Your task to perform on an android device: Open the calendar app, open the side menu, and click the "Day" option Image 0: 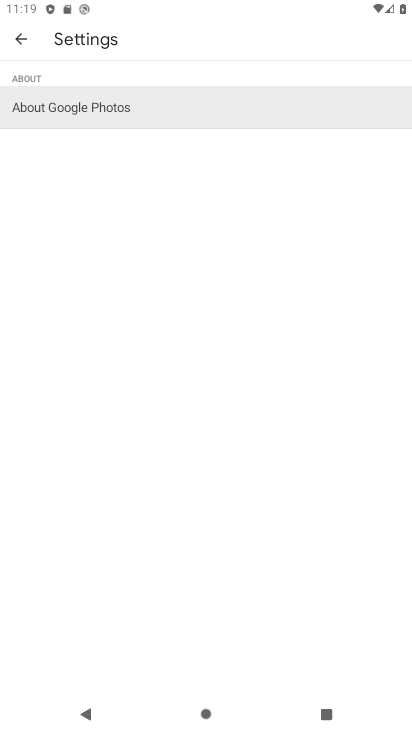
Step 0: press home button
Your task to perform on an android device: Open the calendar app, open the side menu, and click the "Day" option Image 1: 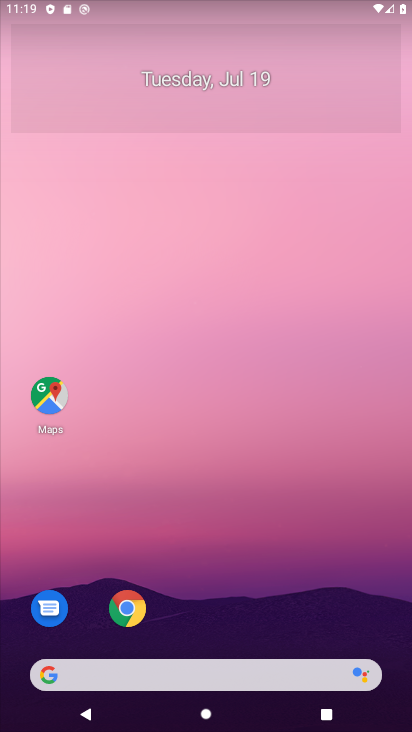
Step 1: drag from (254, 627) to (246, 116)
Your task to perform on an android device: Open the calendar app, open the side menu, and click the "Day" option Image 2: 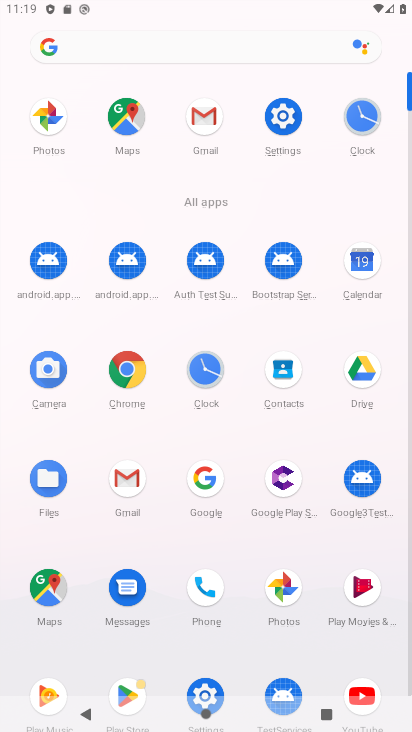
Step 2: click (357, 271)
Your task to perform on an android device: Open the calendar app, open the side menu, and click the "Day" option Image 3: 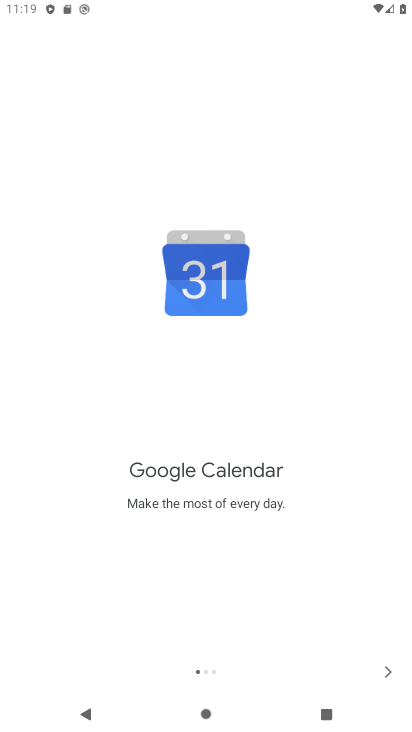
Step 3: click (385, 666)
Your task to perform on an android device: Open the calendar app, open the side menu, and click the "Day" option Image 4: 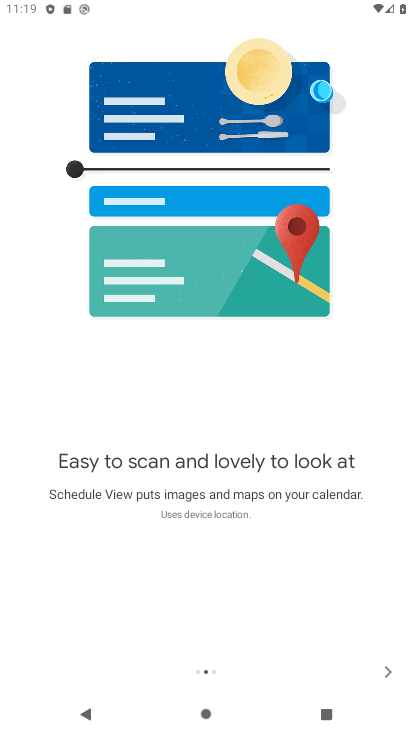
Step 4: click (382, 675)
Your task to perform on an android device: Open the calendar app, open the side menu, and click the "Day" option Image 5: 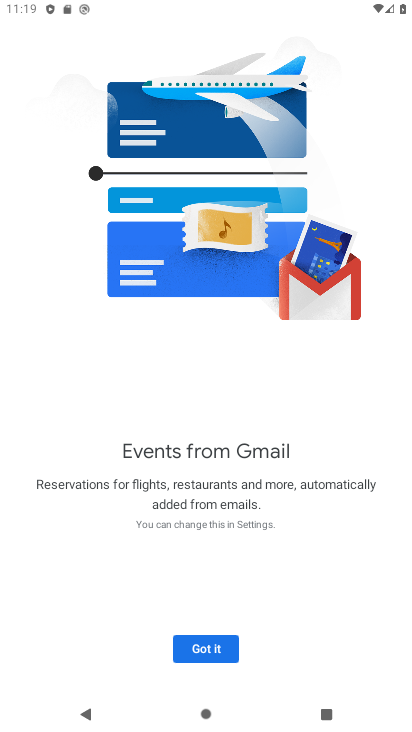
Step 5: click (215, 644)
Your task to perform on an android device: Open the calendar app, open the side menu, and click the "Day" option Image 6: 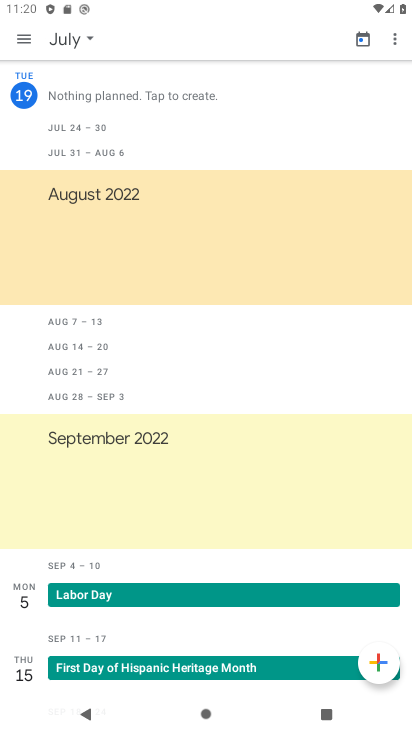
Step 6: click (29, 42)
Your task to perform on an android device: Open the calendar app, open the side menu, and click the "Day" option Image 7: 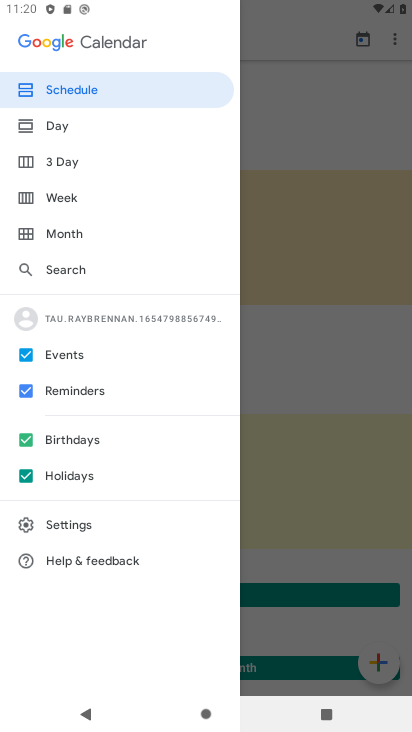
Step 7: click (55, 124)
Your task to perform on an android device: Open the calendar app, open the side menu, and click the "Day" option Image 8: 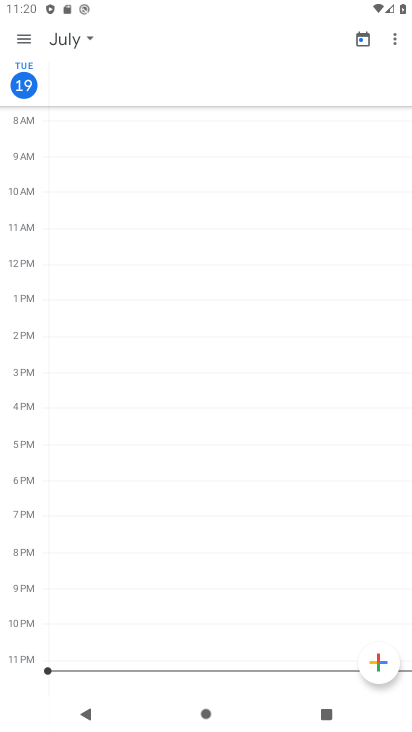
Step 8: task complete